Your task to perform on an android device: What is the recent news? Image 0: 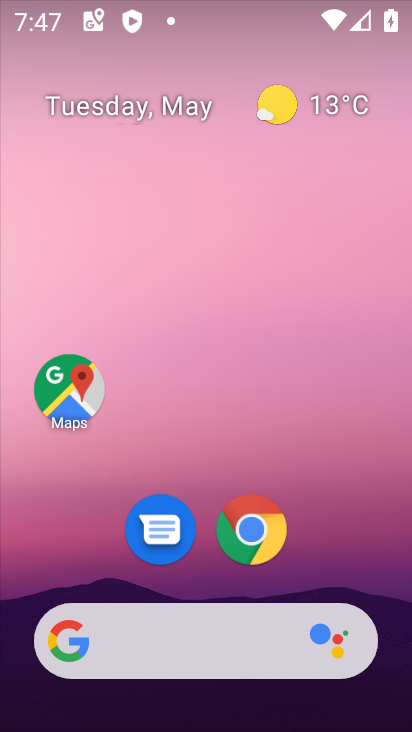
Step 0: click (273, 530)
Your task to perform on an android device: What is the recent news? Image 1: 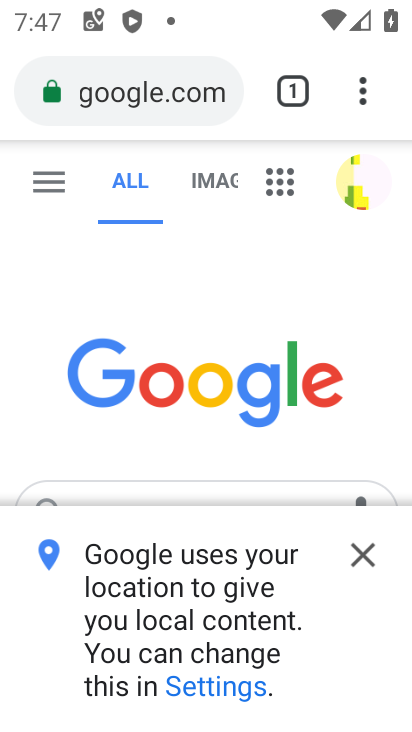
Step 1: click (341, 564)
Your task to perform on an android device: What is the recent news? Image 2: 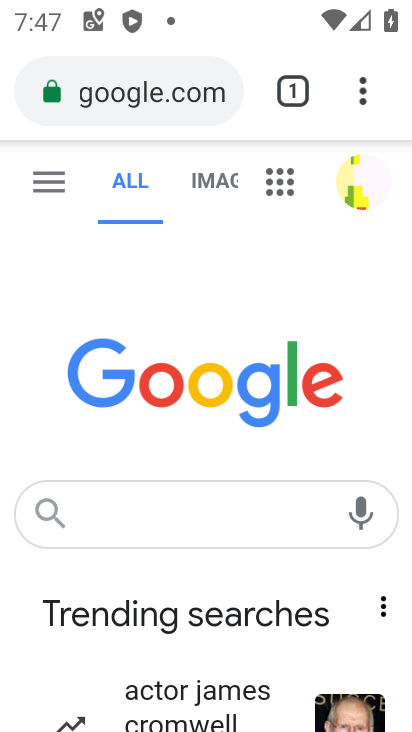
Step 2: task complete